Your task to perform on an android device: What's the weather going to be tomorrow? Image 0: 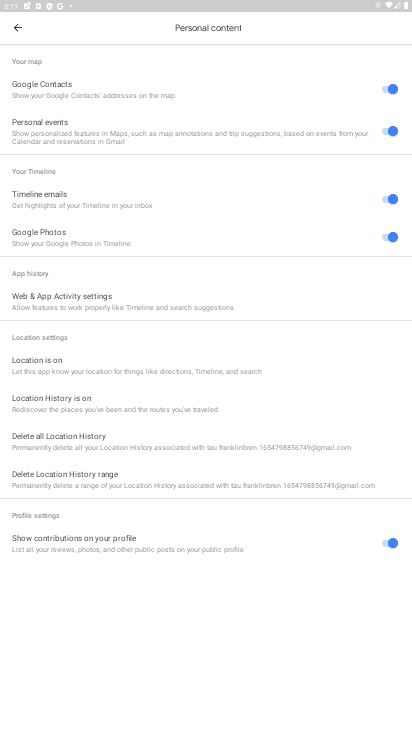
Step 0: press home button
Your task to perform on an android device: What's the weather going to be tomorrow? Image 1: 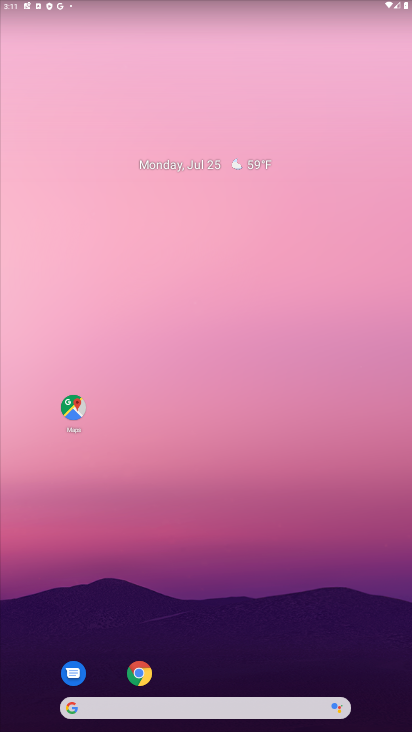
Step 1: click (266, 704)
Your task to perform on an android device: What's the weather going to be tomorrow? Image 2: 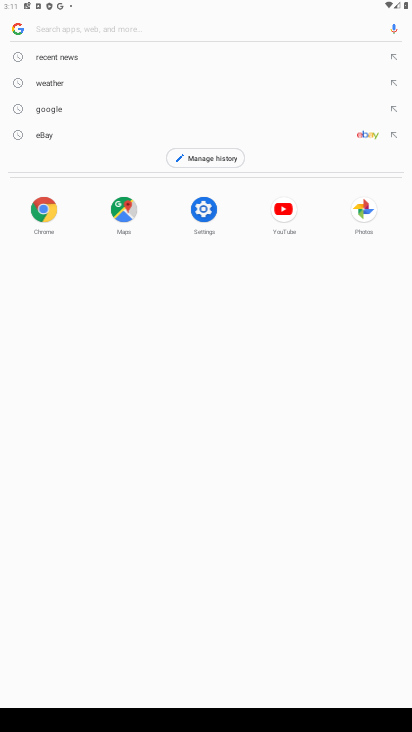
Step 2: click (76, 73)
Your task to perform on an android device: What's the weather going to be tomorrow? Image 3: 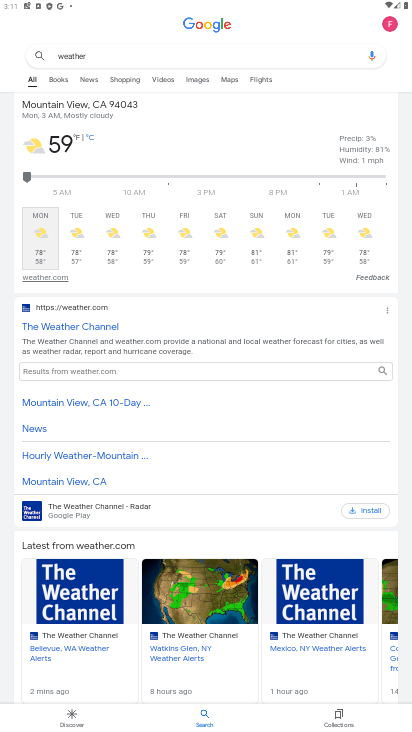
Step 3: click (75, 229)
Your task to perform on an android device: What's the weather going to be tomorrow? Image 4: 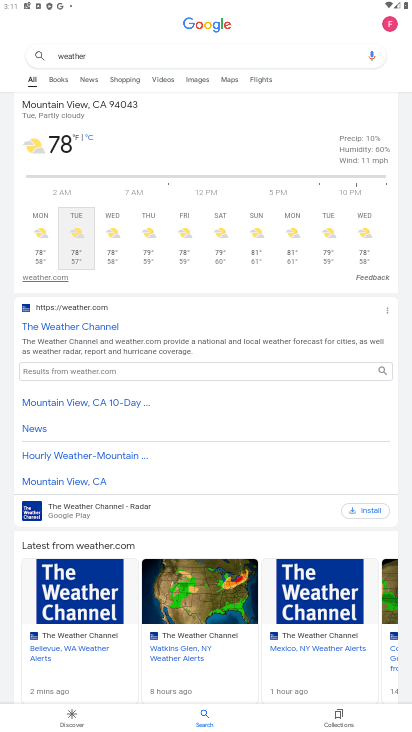
Step 4: task complete